Your task to perform on an android device: toggle improve location accuracy Image 0: 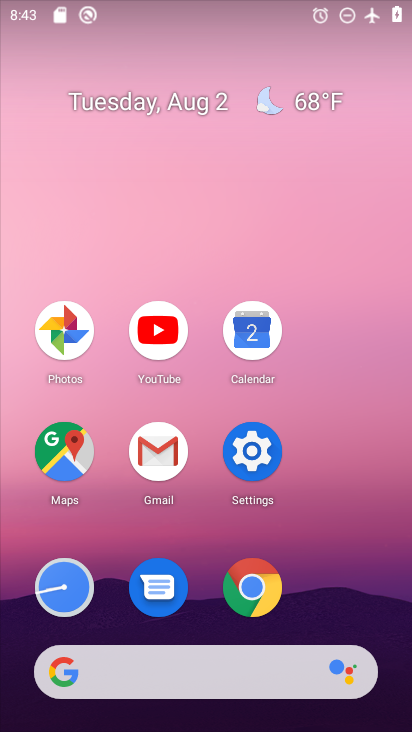
Step 0: click (246, 452)
Your task to perform on an android device: toggle improve location accuracy Image 1: 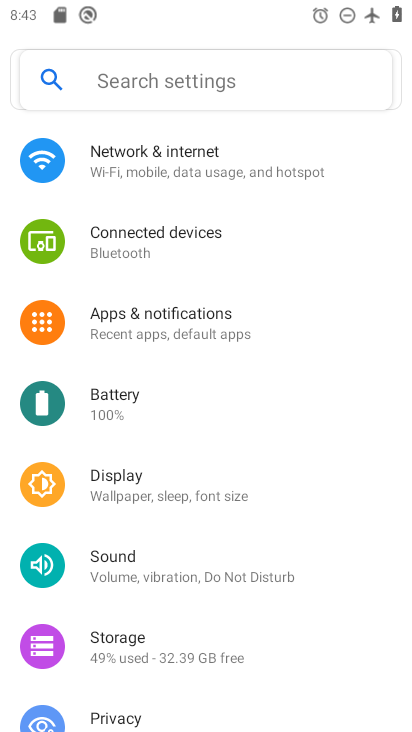
Step 1: drag from (286, 607) to (214, 217)
Your task to perform on an android device: toggle improve location accuracy Image 2: 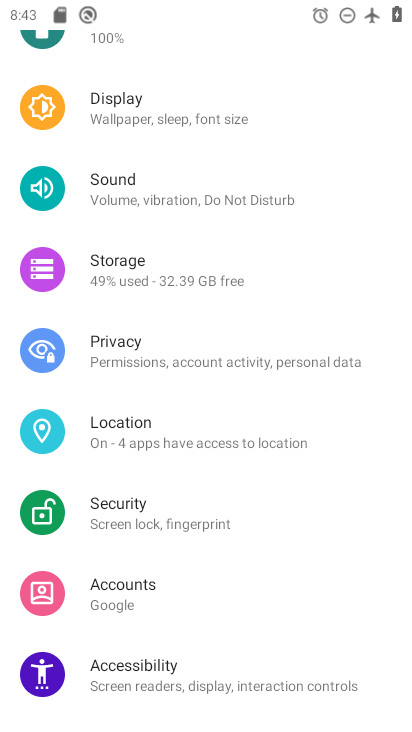
Step 2: click (137, 419)
Your task to perform on an android device: toggle improve location accuracy Image 3: 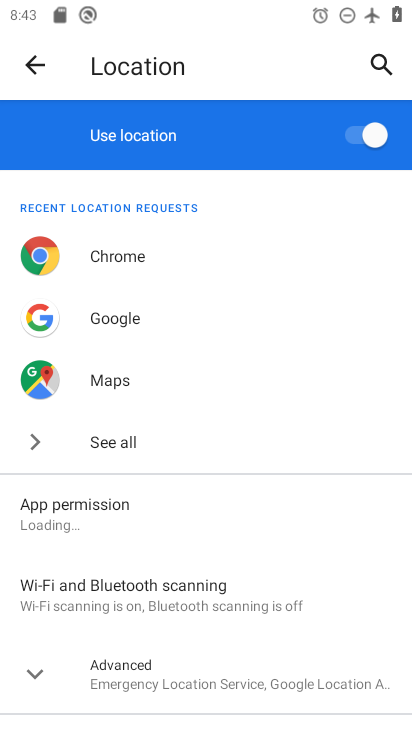
Step 3: drag from (231, 544) to (183, 240)
Your task to perform on an android device: toggle improve location accuracy Image 4: 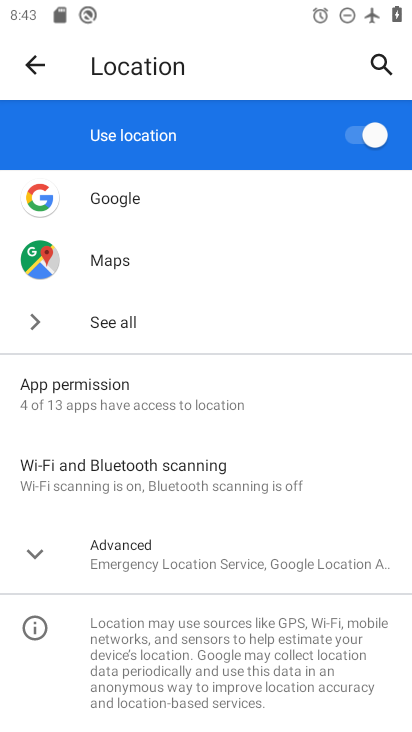
Step 4: click (29, 558)
Your task to perform on an android device: toggle improve location accuracy Image 5: 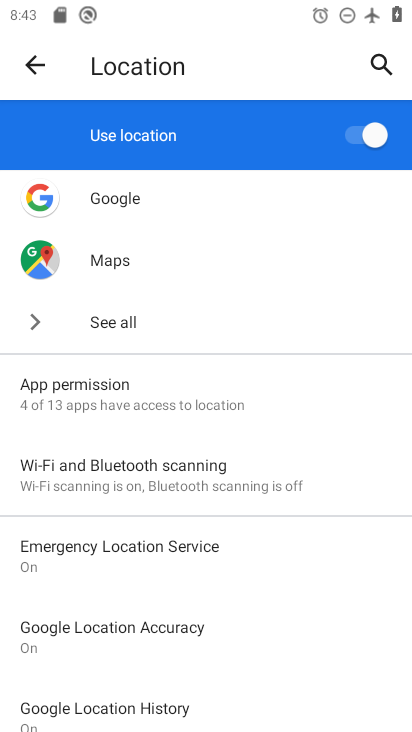
Step 5: click (140, 624)
Your task to perform on an android device: toggle improve location accuracy Image 6: 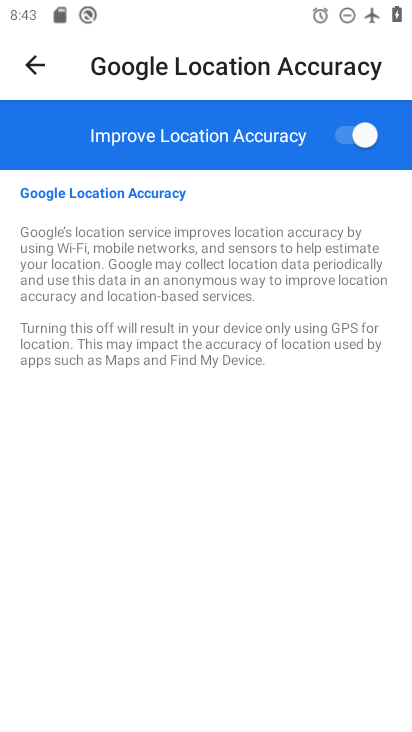
Step 6: click (355, 142)
Your task to perform on an android device: toggle improve location accuracy Image 7: 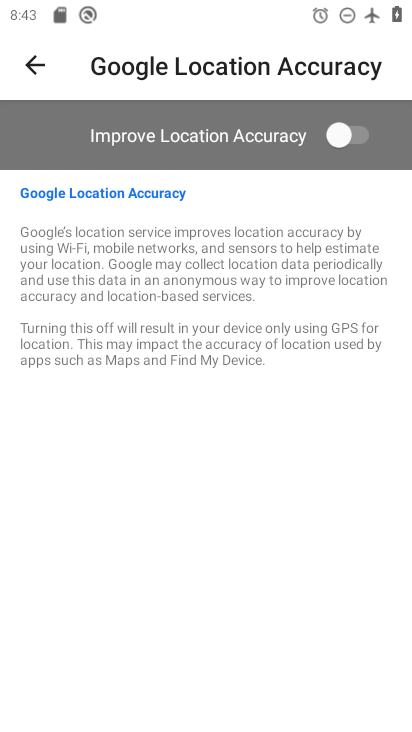
Step 7: task complete